Your task to perform on an android device: change the clock style Image 0: 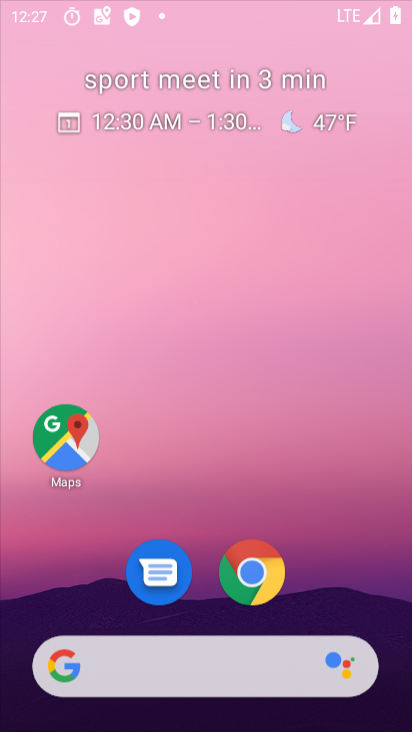
Step 0: click (276, 276)
Your task to perform on an android device: change the clock style Image 1: 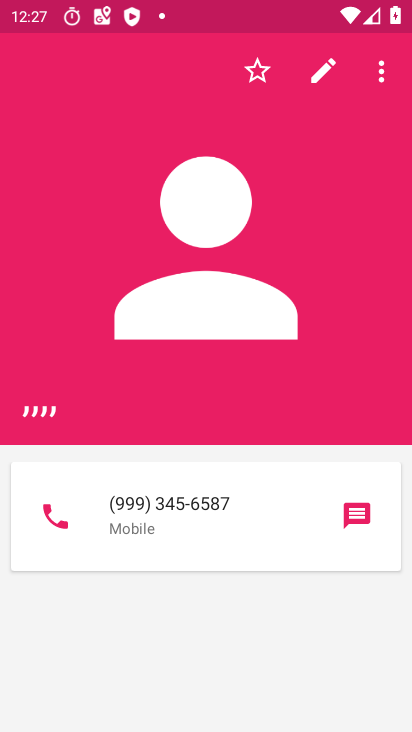
Step 1: press home button
Your task to perform on an android device: change the clock style Image 2: 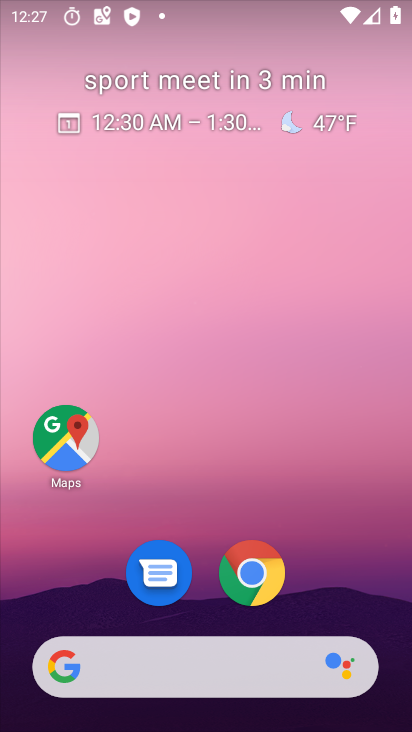
Step 2: drag from (198, 563) to (256, 252)
Your task to perform on an android device: change the clock style Image 3: 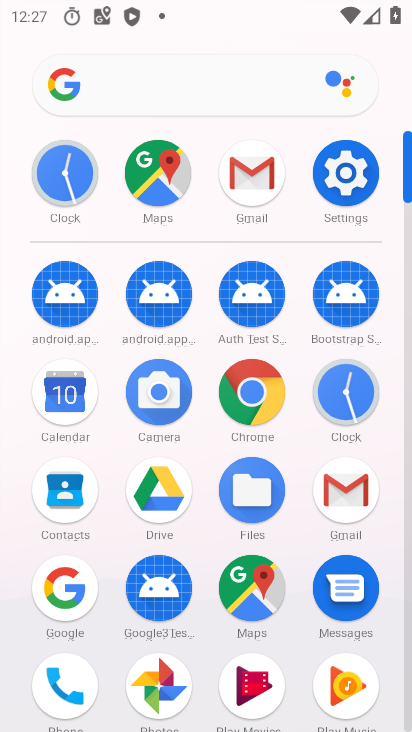
Step 3: click (336, 413)
Your task to perform on an android device: change the clock style Image 4: 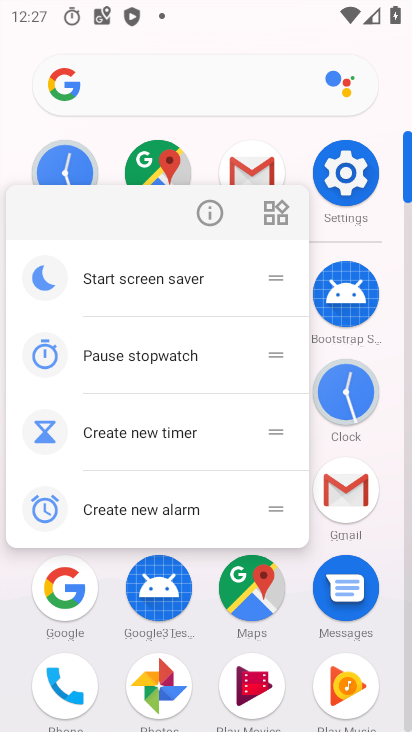
Step 4: click (203, 206)
Your task to perform on an android device: change the clock style Image 5: 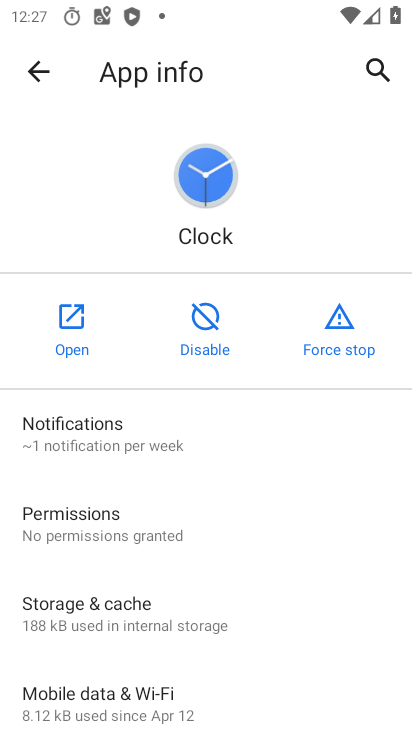
Step 5: click (84, 325)
Your task to perform on an android device: change the clock style Image 6: 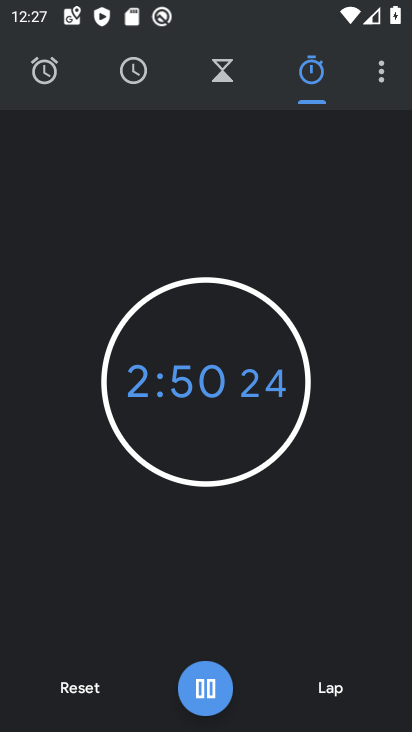
Step 6: click (99, 691)
Your task to perform on an android device: change the clock style Image 7: 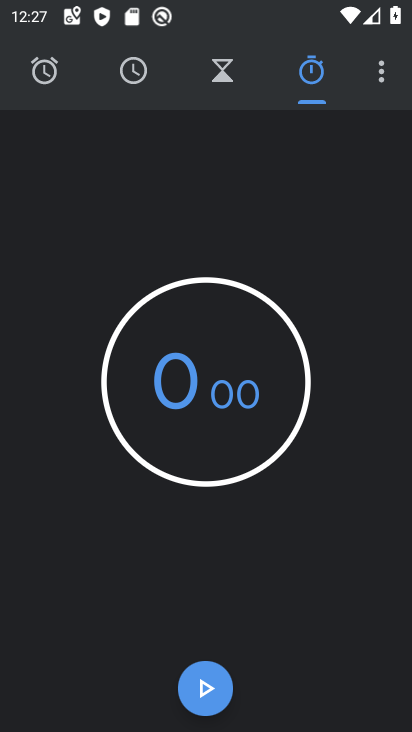
Step 7: click (377, 77)
Your task to perform on an android device: change the clock style Image 8: 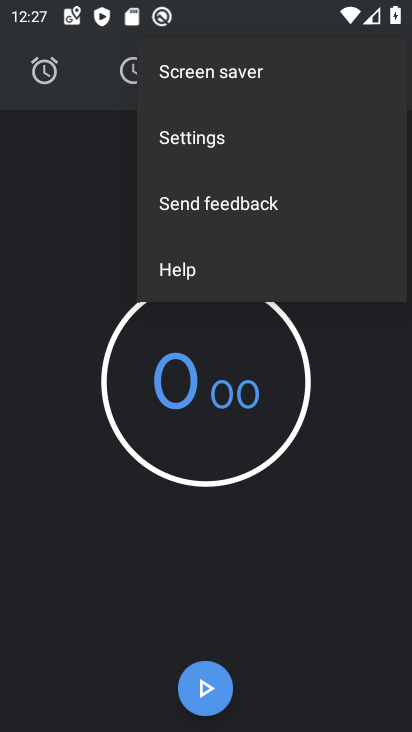
Step 8: click (242, 145)
Your task to perform on an android device: change the clock style Image 9: 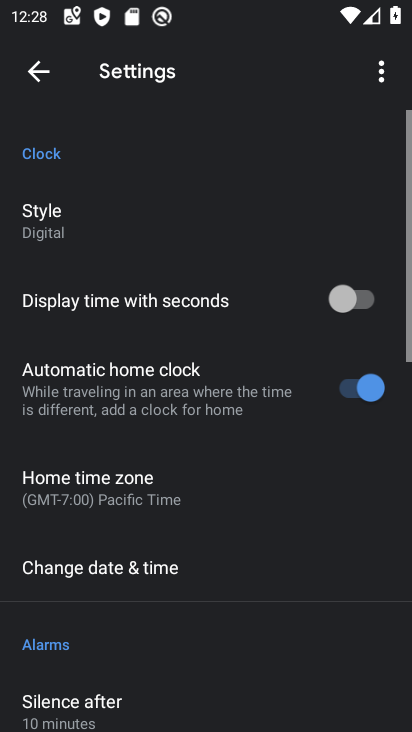
Step 9: click (107, 216)
Your task to perform on an android device: change the clock style Image 10: 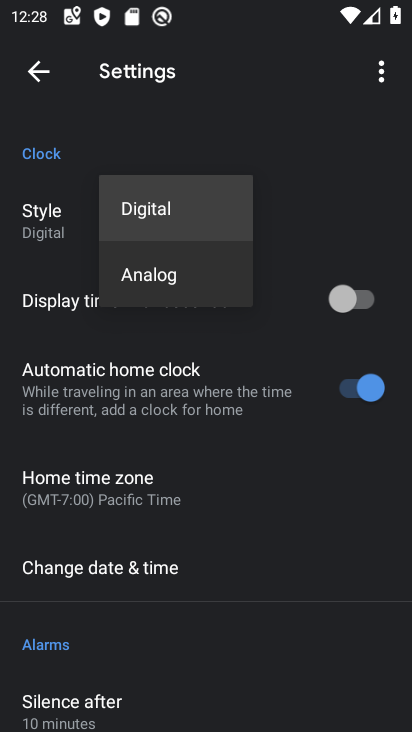
Step 10: click (179, 272)
Your task to perform on an android device: change the clock style Image 11: 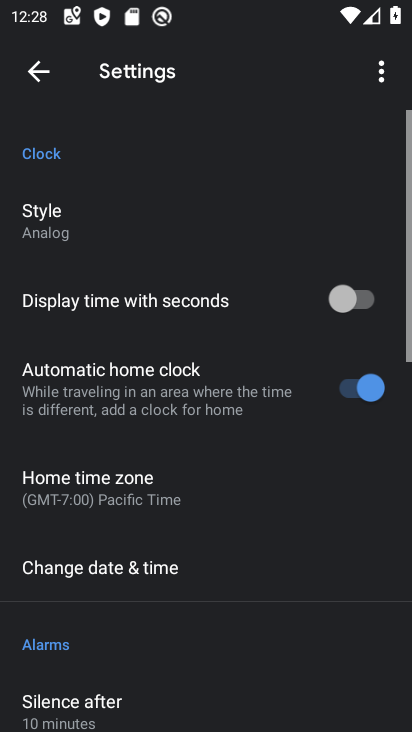
Step 11: task complete